Your task to perform on an android device: Open Yahoo.com Image 0: 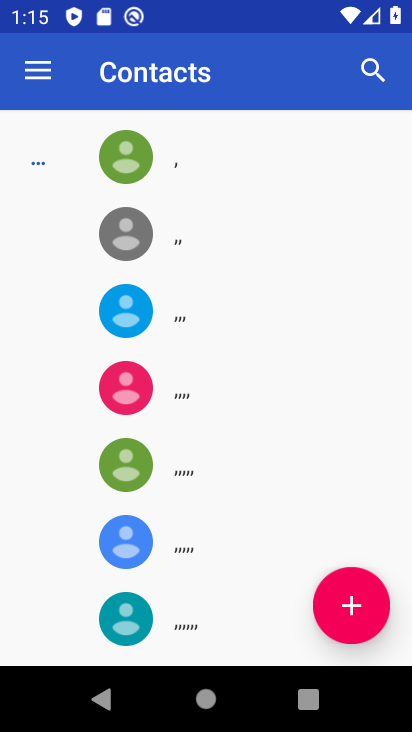
Step 0: press home button
Your task to perform on an android device: Open Yahoo.com Image 1: 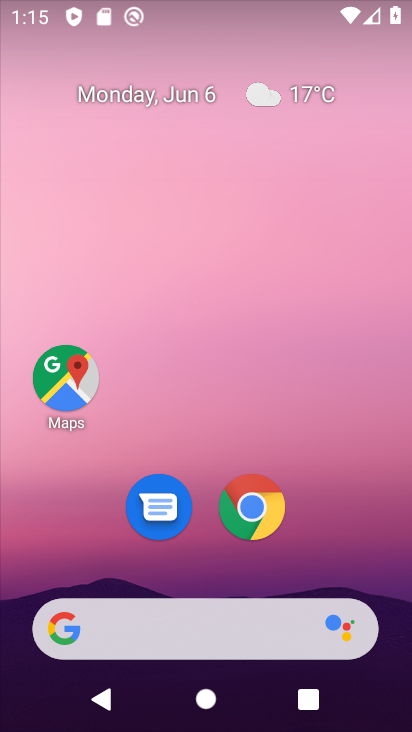
Step 1: drag from (230, 679) to (272, 225)
Your task to perform on an android device: Open Yahoo.com Image 2: 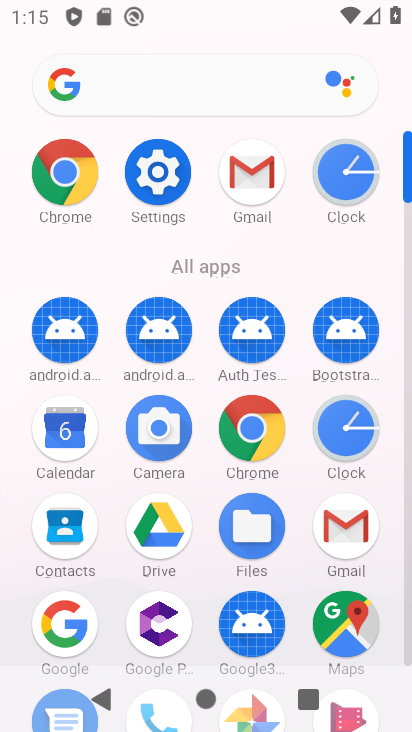
Step 2: click (74, 159)
Your task to perform on an android device: Open Yahoo.com Image 3: 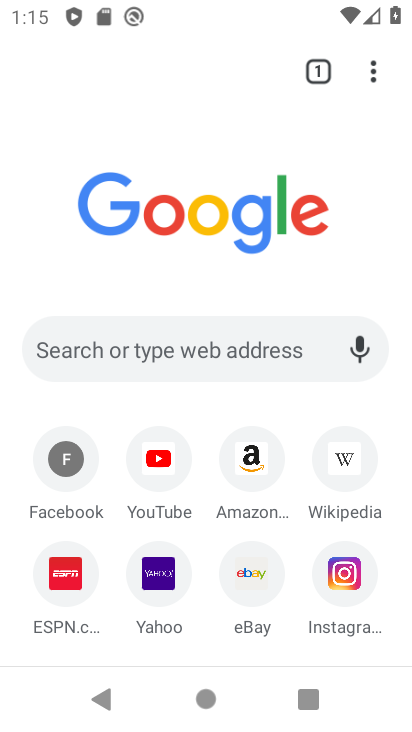
Step 3: click (157, 579)
Your task to perform on an android device: Open Yahoo.com Image 4: 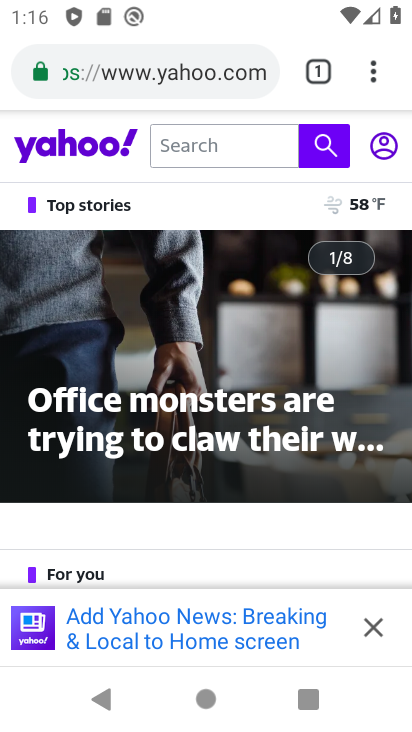
Step 4: task complete